Your task to perform on an android device: turn on bluetooth scan Image 0: 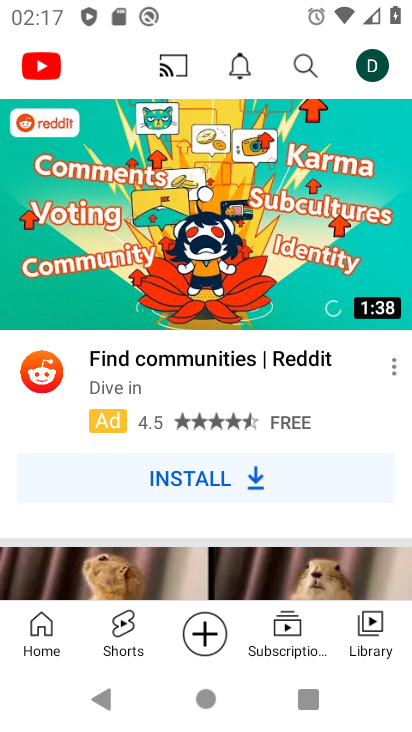
Step 0: press home button
Your task to perform on an android device: turn on bluetooth scan Image 1: 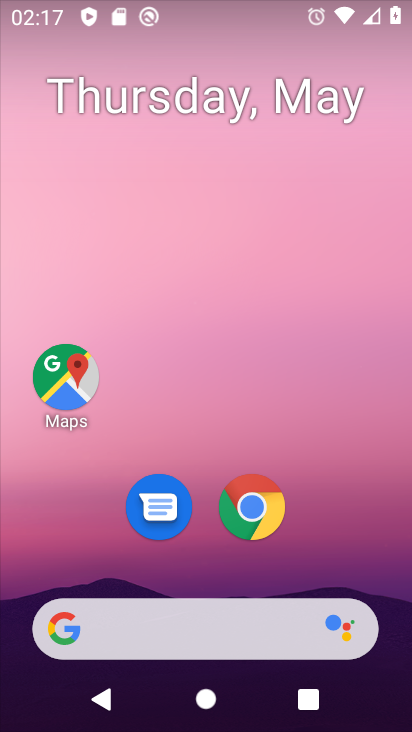
Step 1: drag from (341, 540) to (295, 124)
Your task to perform on an android device: turn on bluetooth scan Image 2: 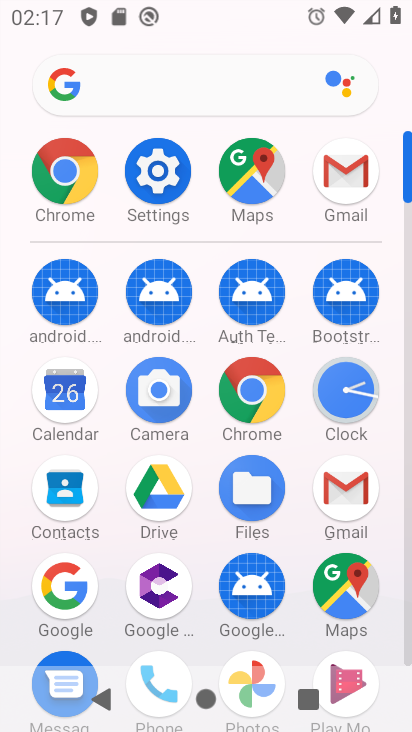
Step 2: click (295, 124)
Your task to perform on an android device: turn on bluetooth scan Image 3: 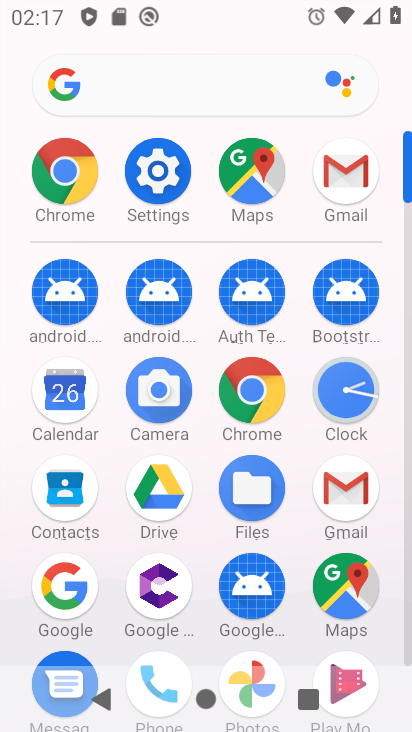
Step 3: click (164, 186)
Your task to perform on an android device: turn on bluetooth scan Image 4: 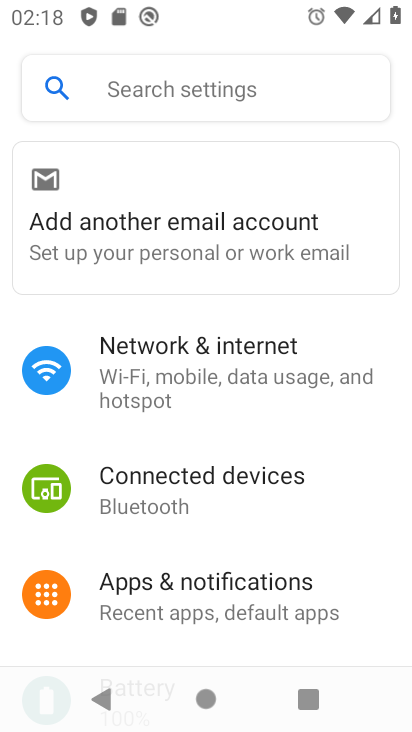
Step 4: drag from (233, 655) to (231, 553)
Your task to perform on an android device: turn on bluetooth scan Image 5: 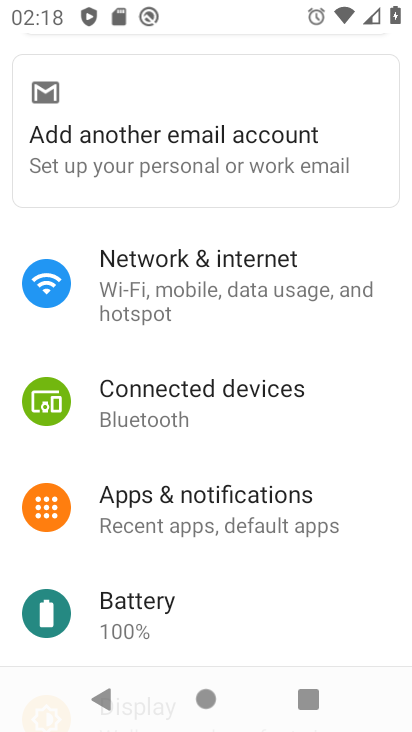
Step 5: drag from (204, 537) to (250, 326)
Your task to perform on an android device: turn on bluetooth scan Image 6: 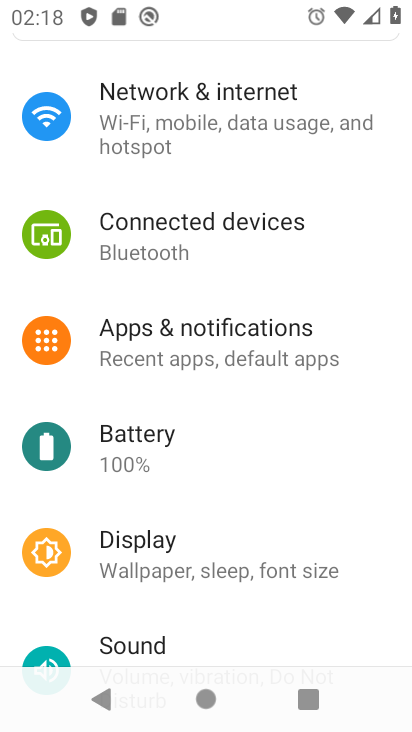
Step 6: drag from (298, 441) to (250, 194)
Your task to perform on an android device: turn on bluetooth scan Image 7: 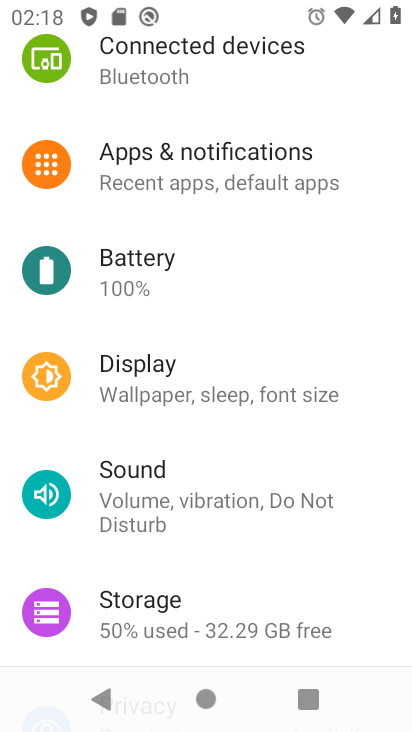
Step 7: drag from (159, 589) to (241, 145)
Your task to perform on an android device: turn on bluetooth scan Image 8: 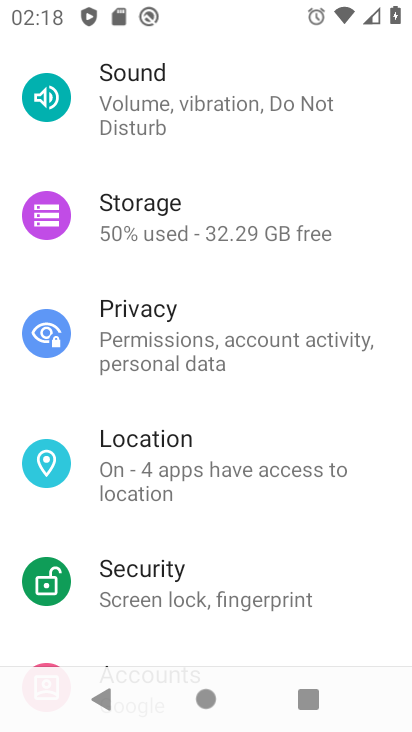
Step 8: click (235, 492)
Your task to perform on an android device: turn on bluetooth scan Image 9: 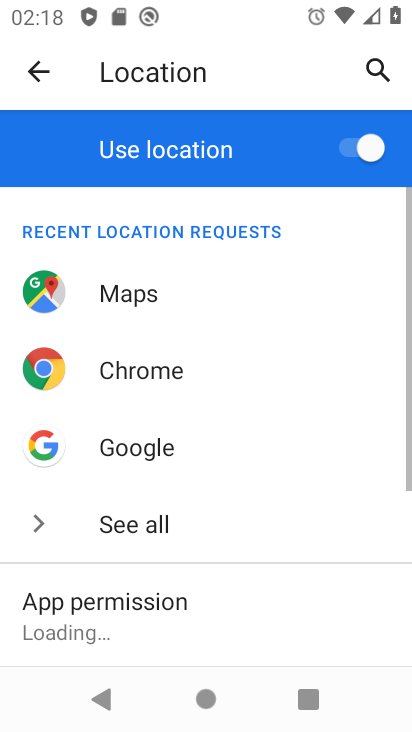
Step 9: drag from (235, 583) to (252, 161)
Your task to perform on an android device: turn on bluetooth scan Image 10: 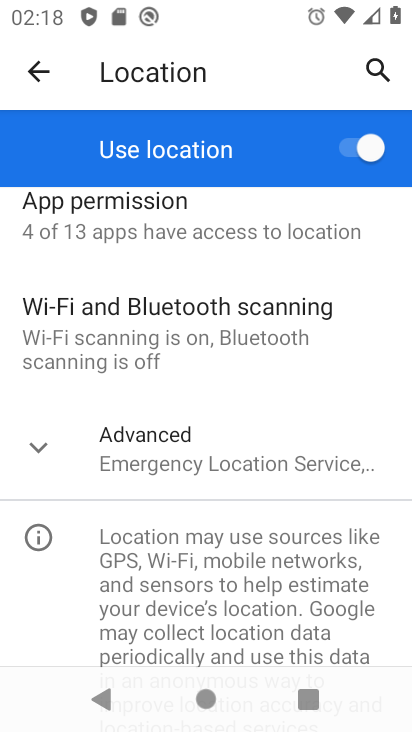
Step 10: click (253, 341)
Your task to perform on an android device: turn on bluetooth scan Image 11: 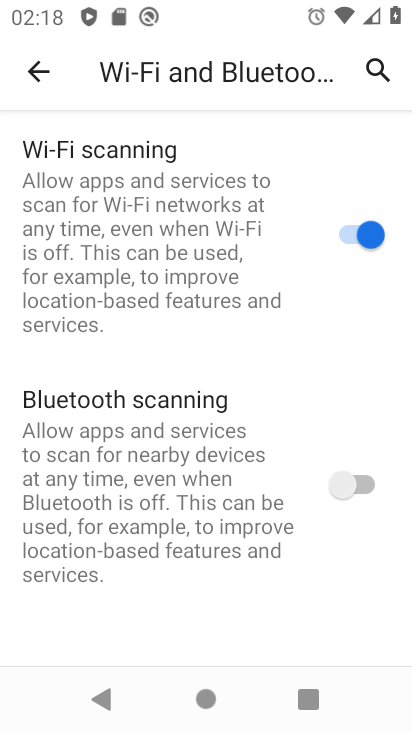
Step 11: click (313, 441)
Your task to perform on an android device: turn on bluetooth scan Image 12: 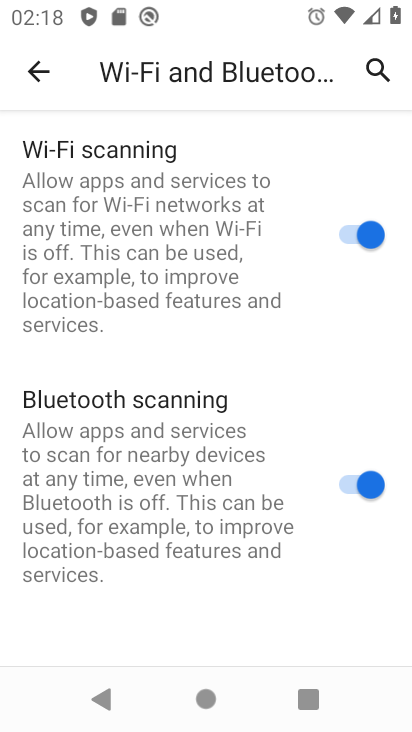
Step 12: task complete